Your task to perform on an android device: search for starred emails in the gmail app Image 0: 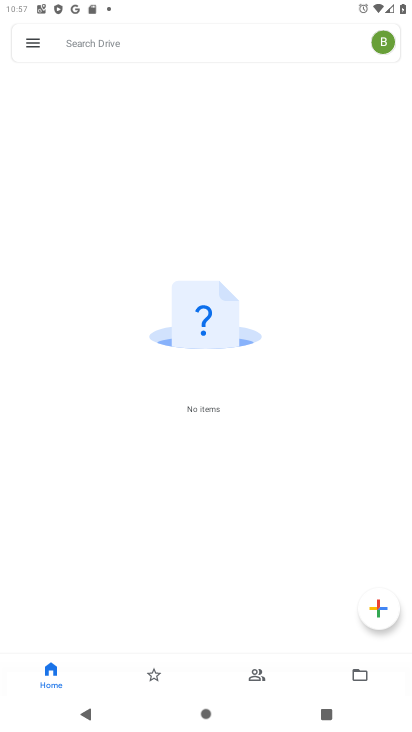
Step 0: press home button
Your task to perform on an android device: search for starred emails in the gmail app Image 1: 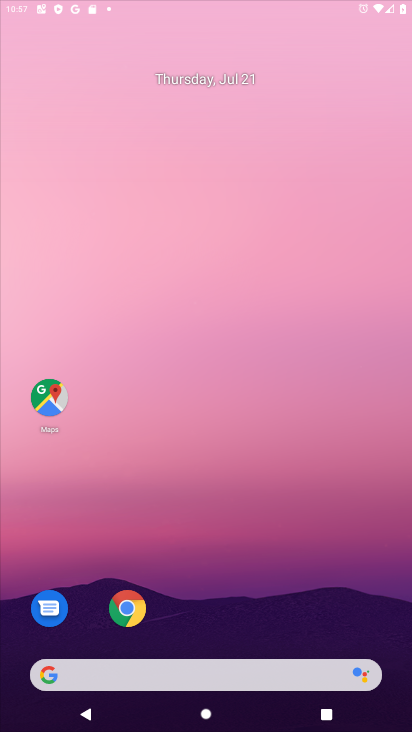
Step 1: drag from (364, 686) to (263, 59)
Your task to perform on an android device: search for starred emails in the gmail app Image 2: 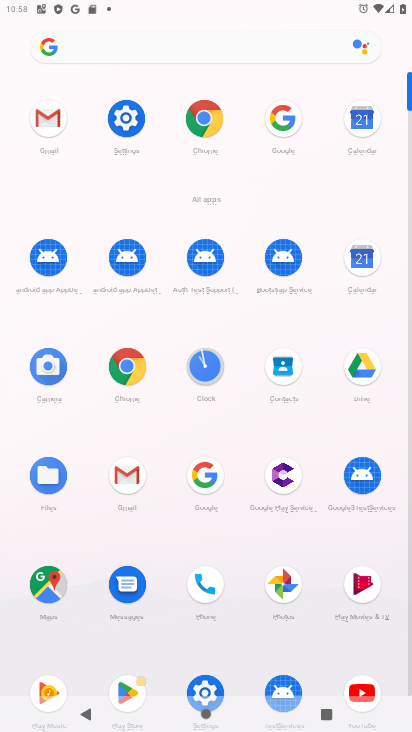
Step 2: click (132, 485)
Your task to perform on an android device: search for starred emails in the gmail app Image 3: 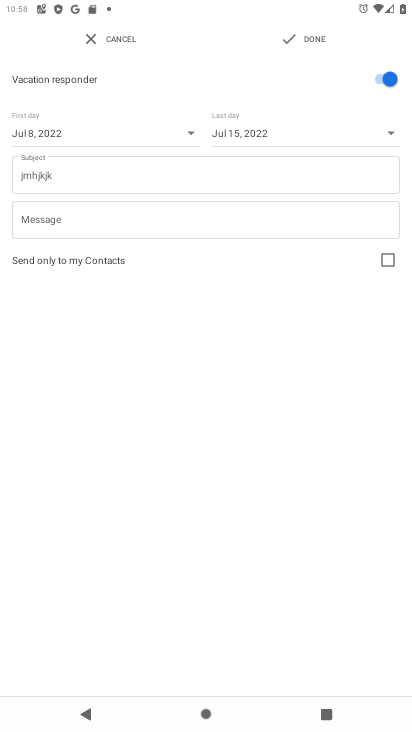
Step 3: press back button
Your task to perform on an android device: search for starred emails in the gmail app Image 4: 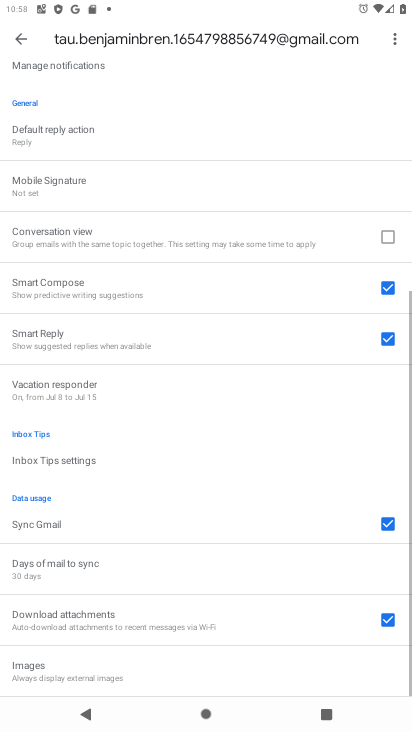
Step 4: press back button
Your task to perform on an android device: search for starred emails in the gmail app Image 5: 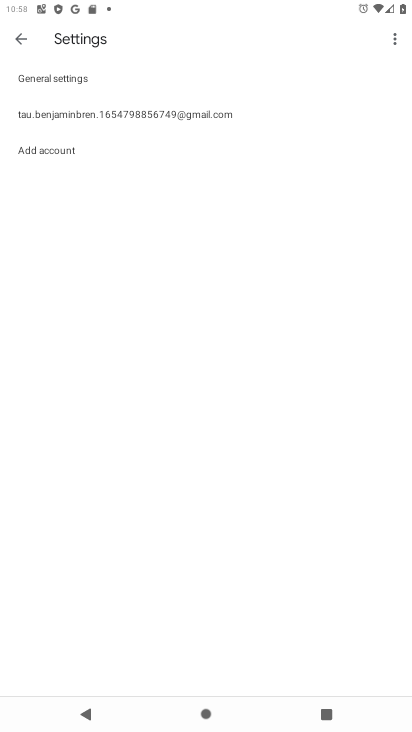
Step 5: press back button
Your task to perform on an android device: search for starred emails in the gmail app Image 6: 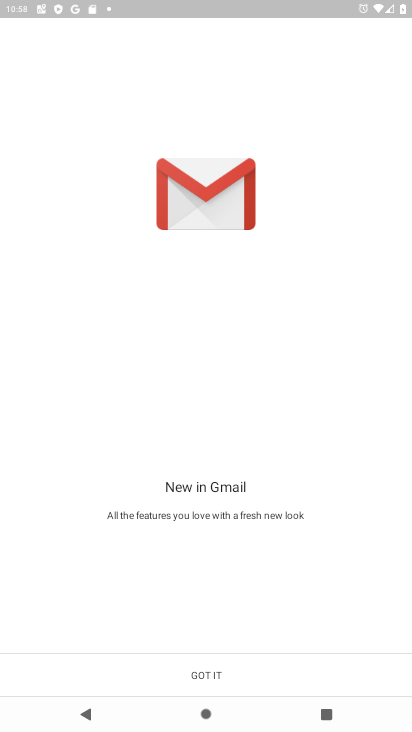
Step 6: click (201, 676)
Your task to perform on an android device: search for starred emails in the gmail app Image 7: 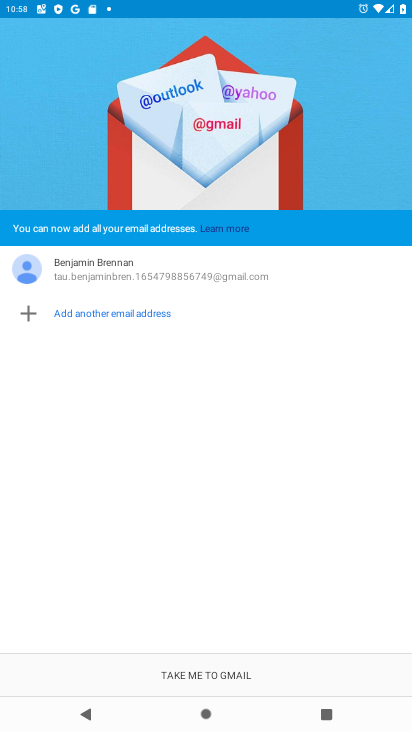
Step 7: click (201, 676)
Your task to perform on an android device: search for starred emails in the gmail app Image 8: 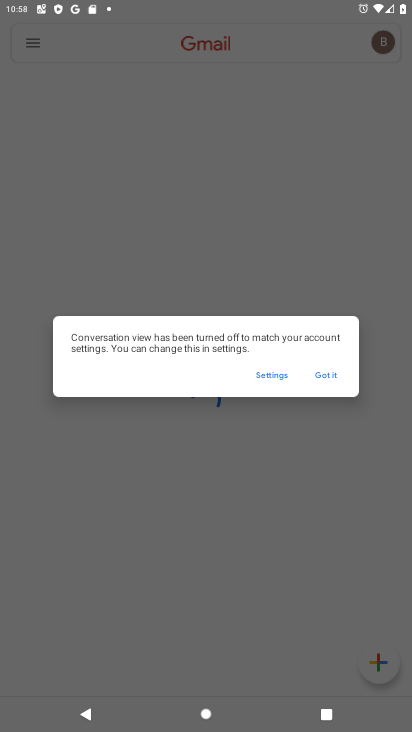
Step 8: click (331, 375)
Your task to perform on an android device: search for starred emails in the gmail app Image 9: 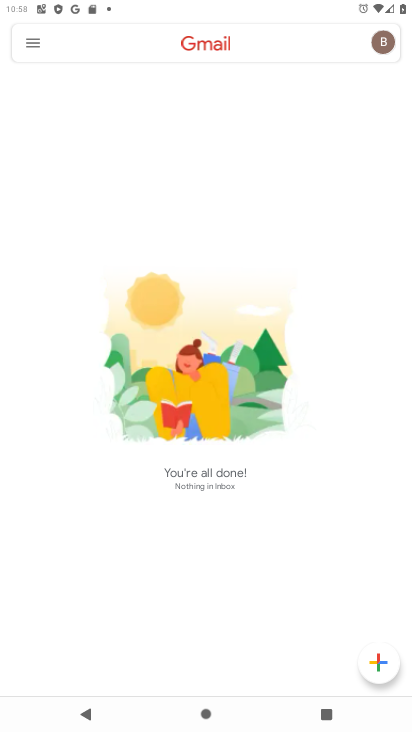
Step 9: click (35, 37)
Your task to perform on an android device: search for starred emails in the gmail app Image 10: 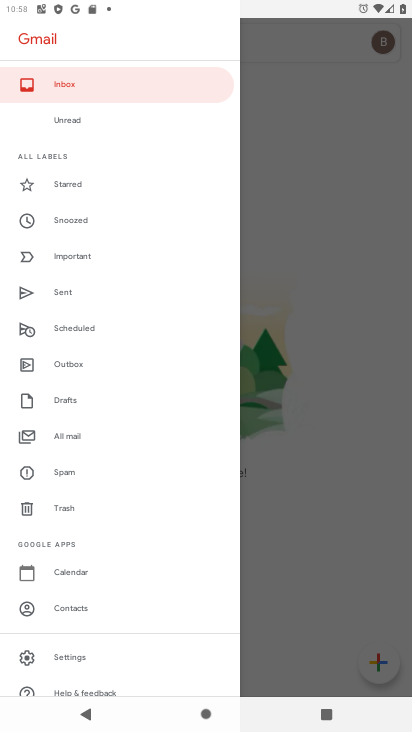
Step 10: click (77, 183)
Your task to perform on an android device: search for starred emails in the gmail app Image 11: 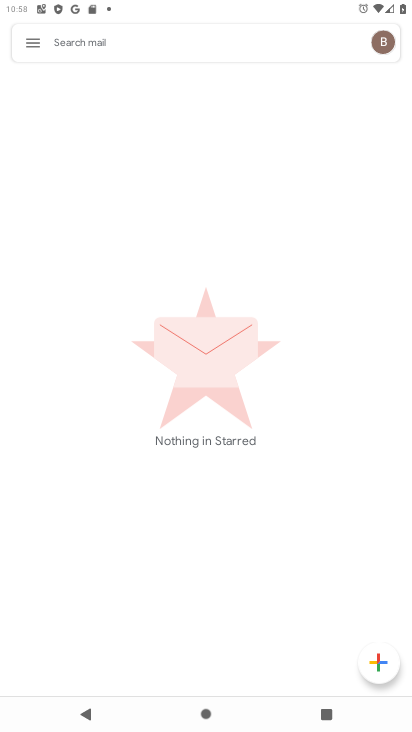
Step 11: task complete